Your task to perform on an android device: manage bookmarks in the chrome app Image 0: 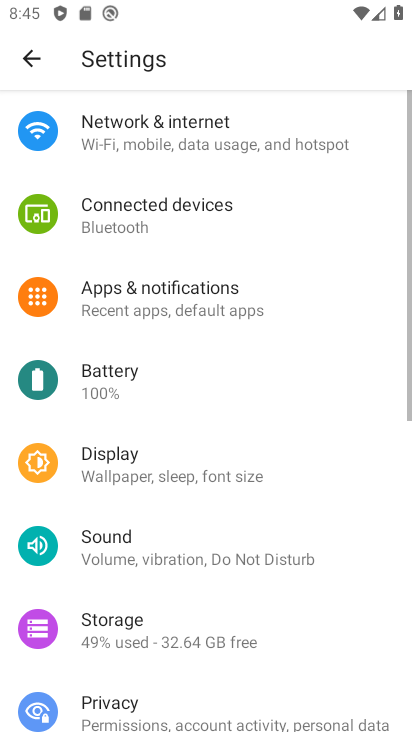
Step 0: press home button
Your task to perform on an android device: manage bookmarks in the chrome app Image 1: 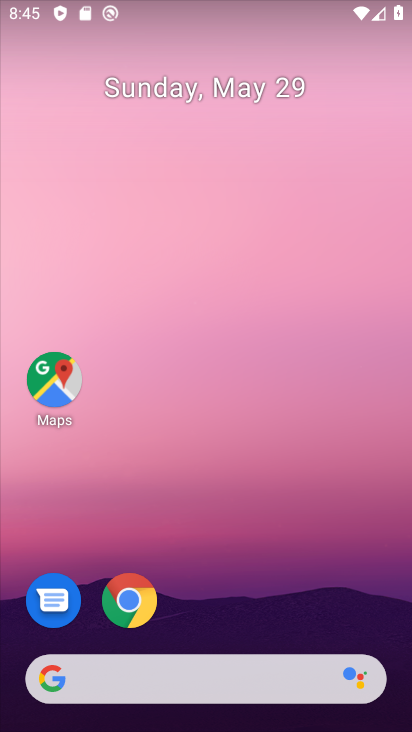
Step 1: click (129, 603)
Your task to perform on an android device: manage bookmarks in the chrome app Image 2: 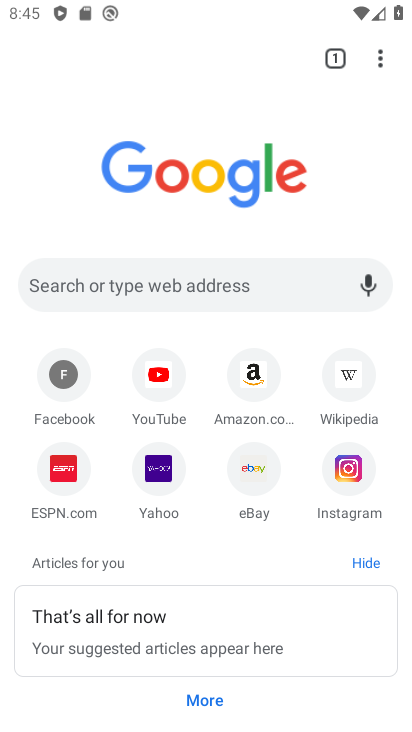
Step 2: click (382, 65)
Your task to perform on an android device: manage bookmarks in the chrome app Image 3: 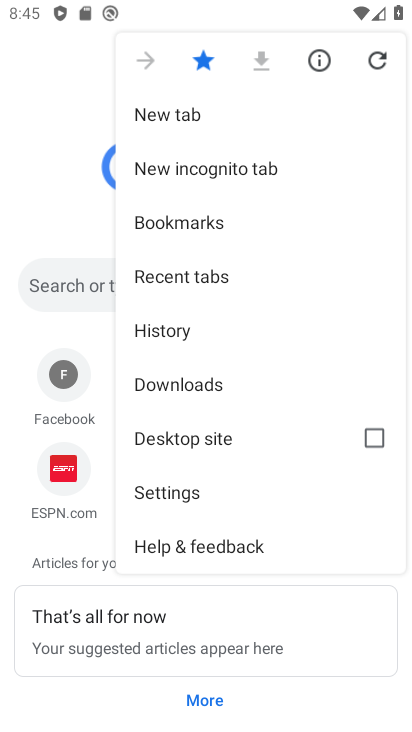
Step 3: click (198, 220)
Your task to perform on an android device: manage bookmarks in the chrome app Image 4: 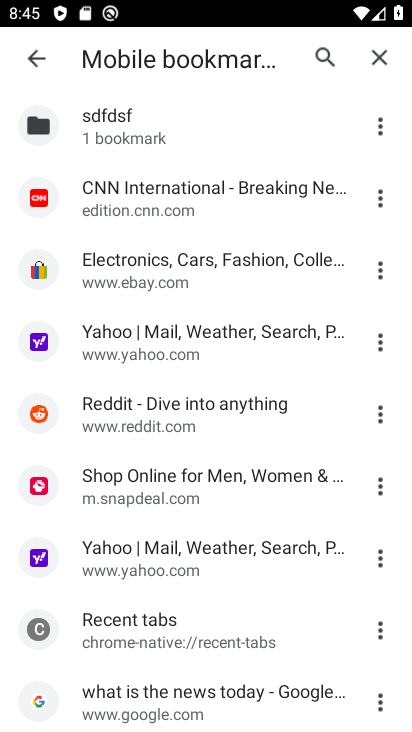
Step 4: click (382, 201)
Your task to perform on an android device: manage bookmarks in the chrome app Image 5: 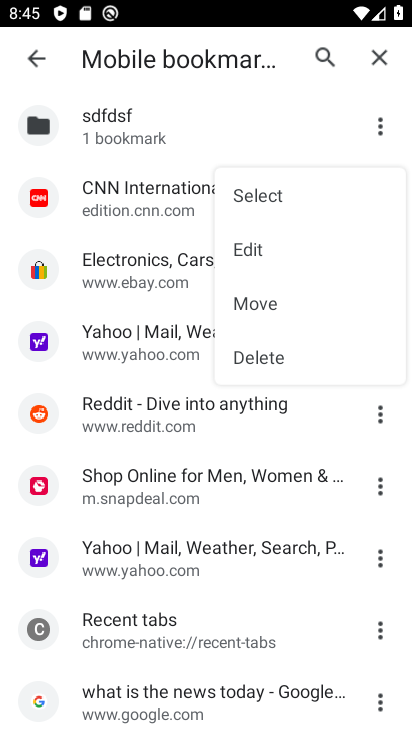
Step 5: click (252, 247)
Your task to perform on an android device: manage bookmarks in the chrome app Image 6: 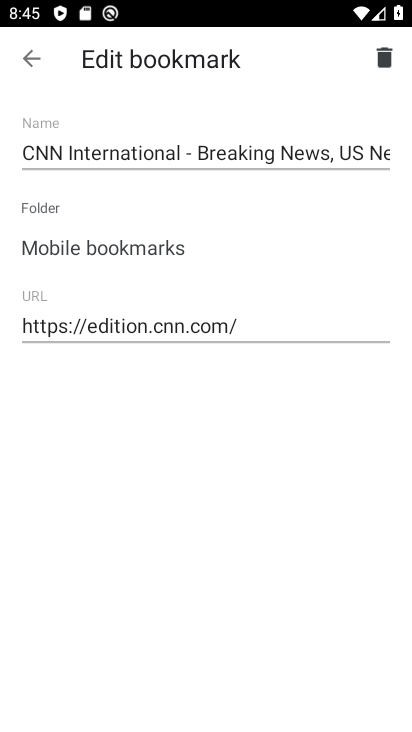
Step 6: click (244, 150)
Your task to perform on an android device: manage bookmarks in the chrome app Image 7: 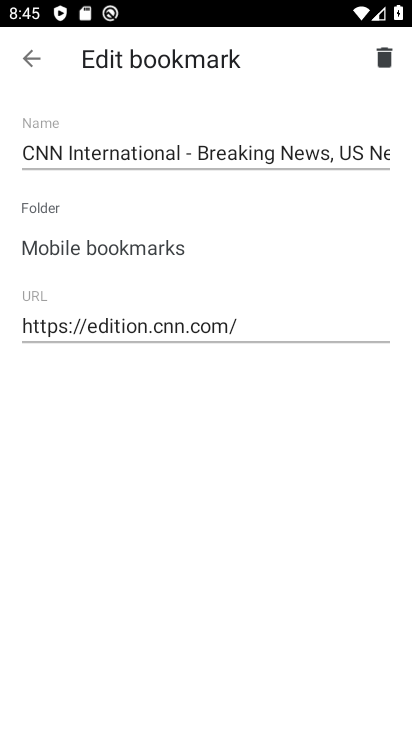
Step 7: click (244, 150)
Your task to perform on an android device: manage bookmarks in the chrome app Image 8: 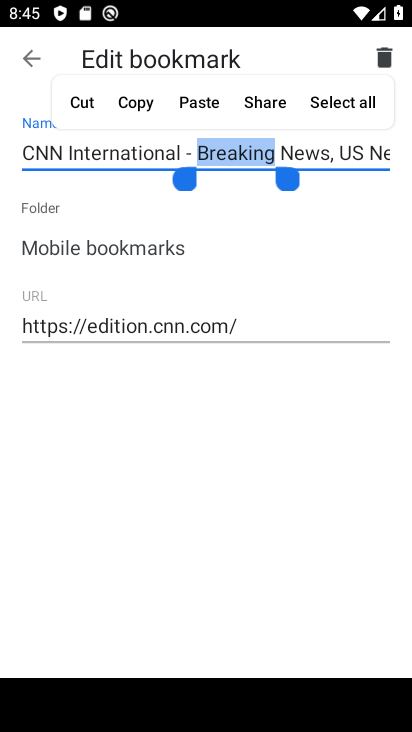
Step 8: drag from (188, 179) to (2, 166)
Your task to perform on an android device: manage bookmarks in the chrome app Image 9: 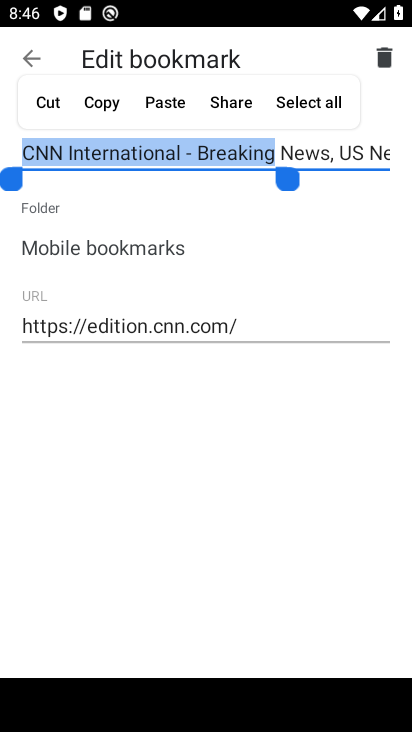
Step 9: click (48, 103)
Your task to perform on an android device: manage bookmarks in the chrome app Image 10: 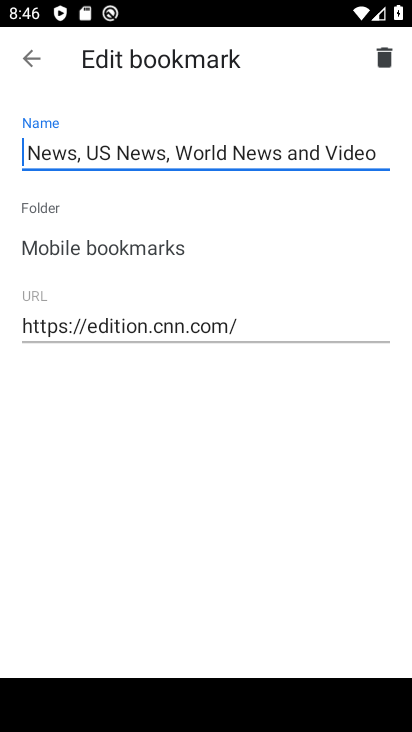
Step 10: click (38, 60)
Your task to perform on an android device: manage bookmarks in the chrome app Image 11: 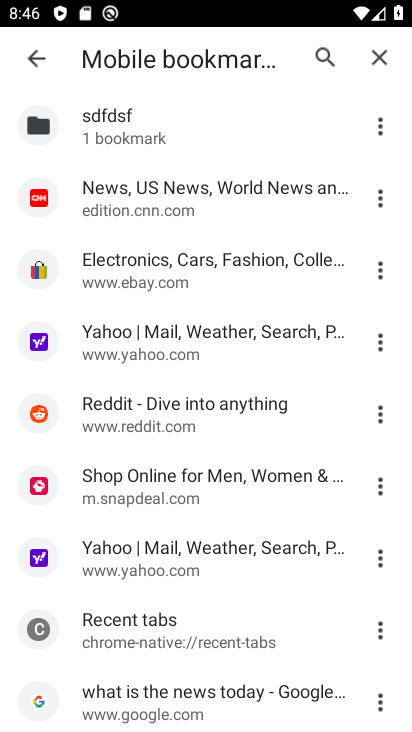
Step 11: task complete